Your task to perform on an android device: open chrome privacy settings Image 0: 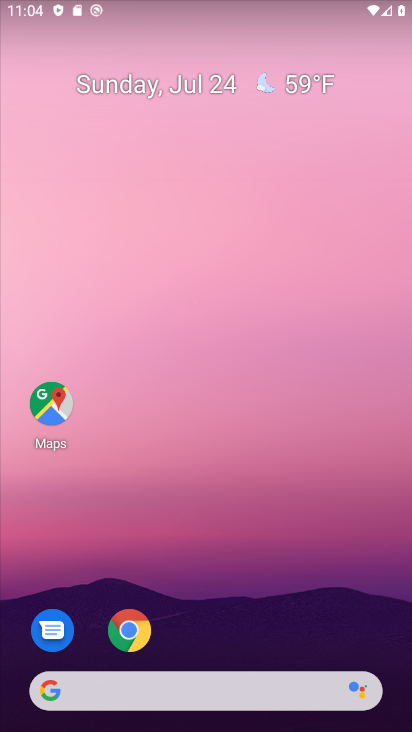
Step 0: press home button
Your task to perform on an android device: open chrome privacy settings Image 1: 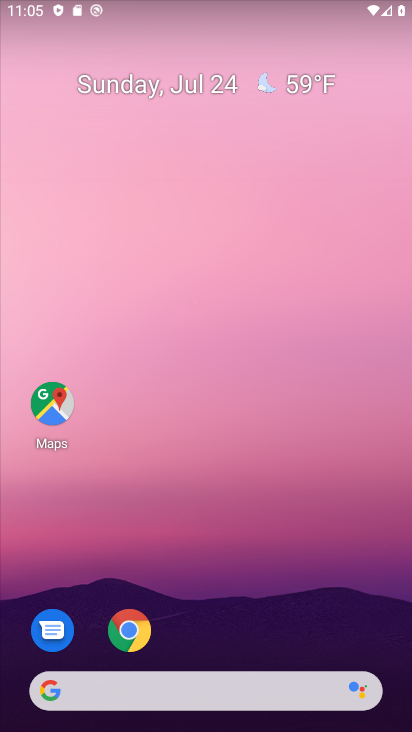
Step 1: click (127, 628)
Your task to perform on an android device: open chrome privacy settings Image 2: 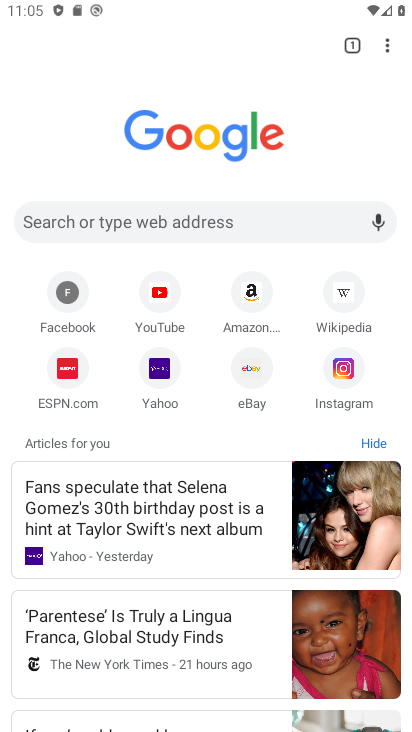
Step 2: click (387, 44)
Your task to perform on an android device: open chrome privacy settings Image 3: 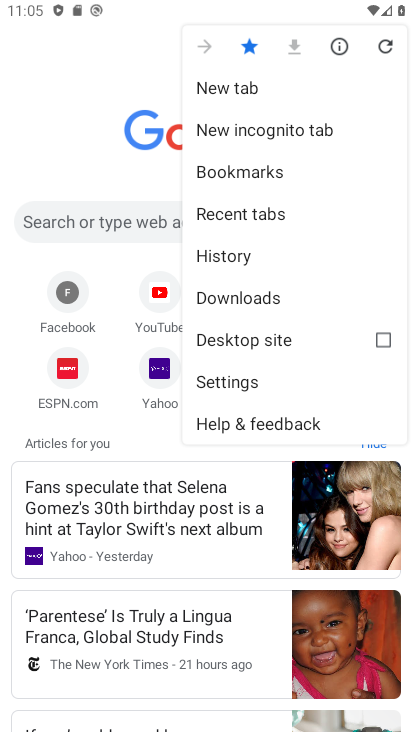
Step 3: click (265, 374)
Your task to perform on an android device: open chrome privacy settings Image 4: 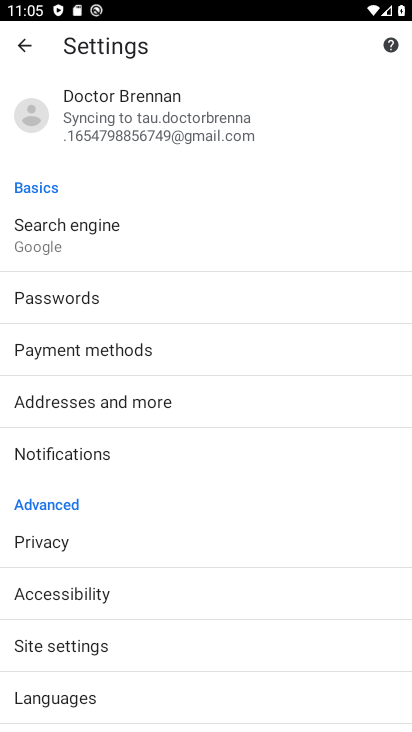
Step 4: click (84, 538)
Your task to perform on an android device: open chrome privacy settings Image 5: 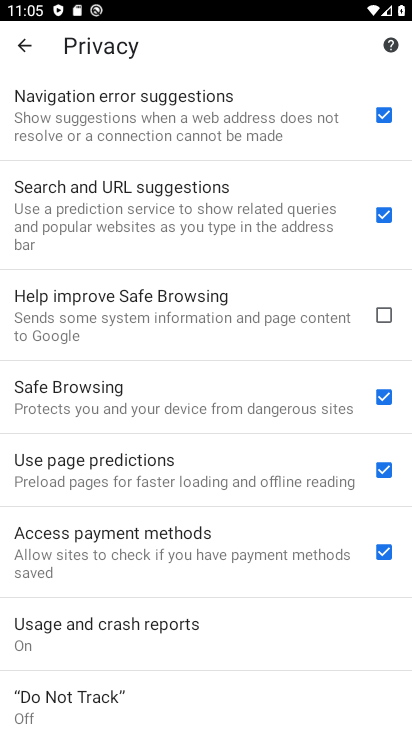
Step 5: task complete